Your task to perform on an android device: turn on sleep mode Image 0: 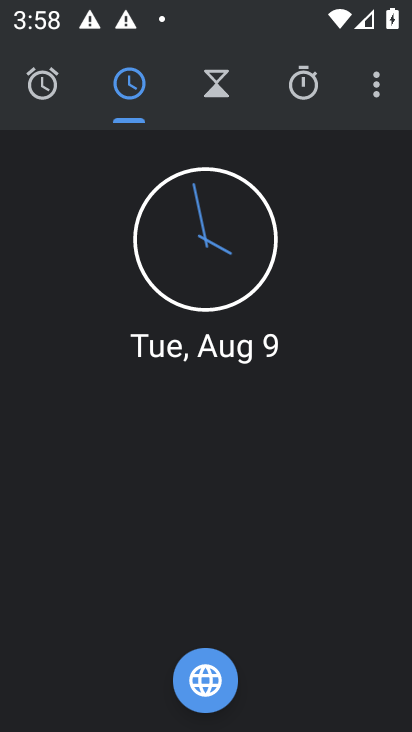
Step 0: press home button
Your task to perform on an android device: turn on sleep mode Image 1: 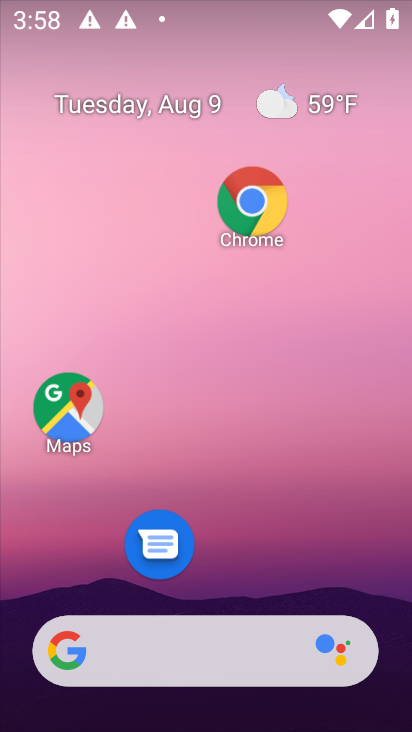
Step 1: task complete